Your task to perform on an android device: check battery use Image 0: 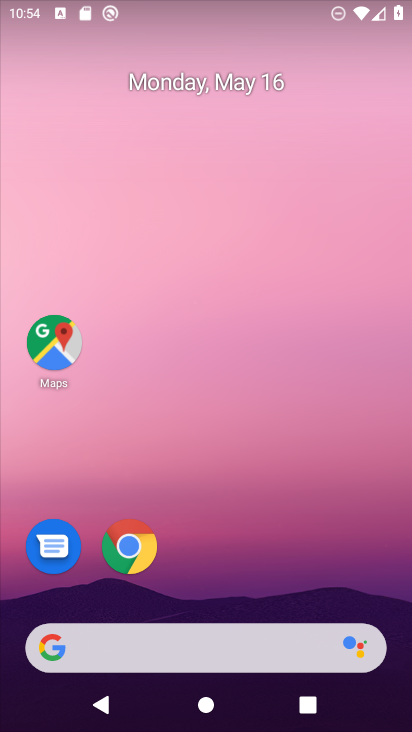
Step 0: drag from (165, 616) to (221, 225)
Your task to perform on an android device: check battery use Image 1: 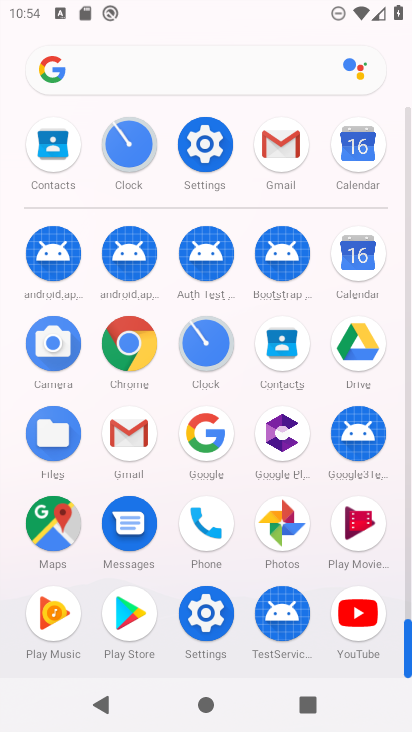
Step 1: click (200, 169)
Your task to perform on an android device: check battery use Image 2: 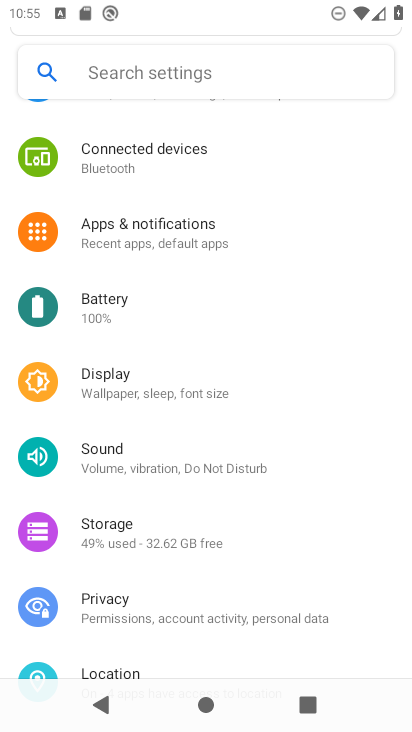
Step 2: click (99, 307)
Your task to perform on an android device: check battery use Image 3: 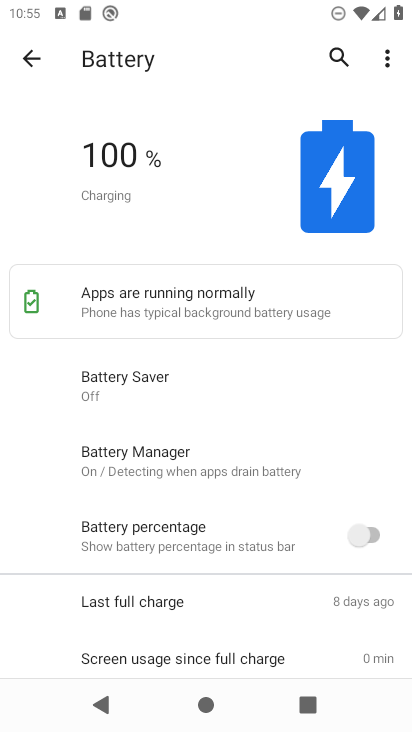
Step 3: task complete